Your task to perform on an android device: turn pop-ups on in chrome Image 0: 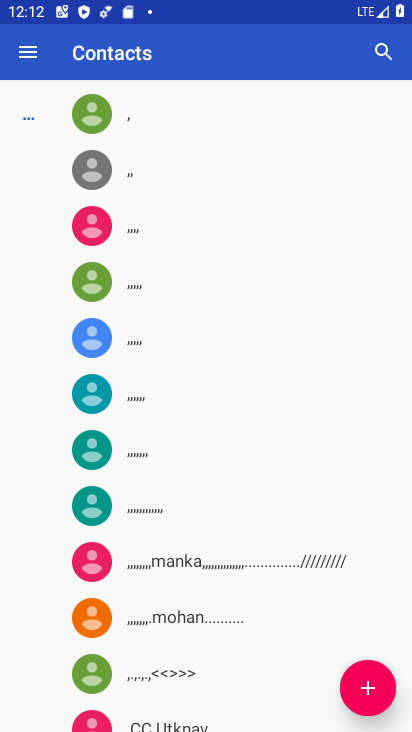
Step 0: press home button
Your task to perform on an android device: turn pop-ups on in chrome Image 1: 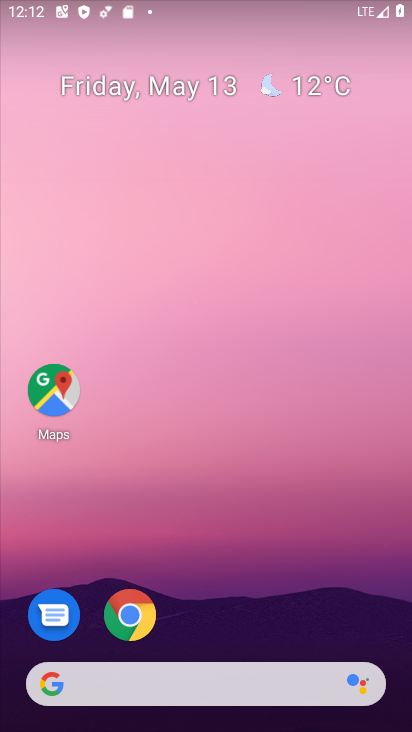
Step 1: click (140, 617)
Your task to perform on an android device: turn pop-ups on in chrome Image 2: 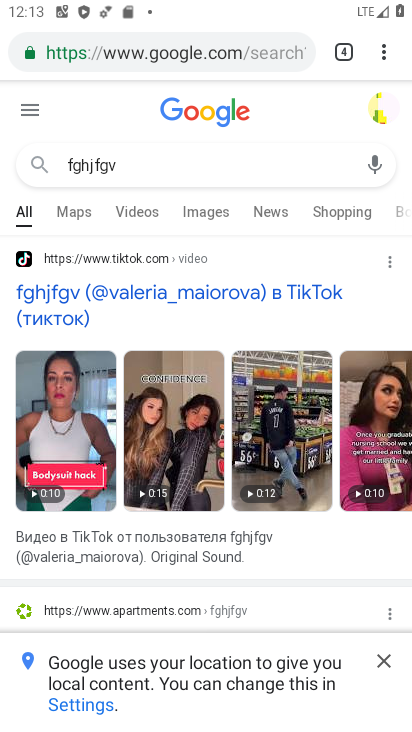
Step 2: click (379, 50)
Your task to perform on an android device: turn pop-ups on in chrome Image 3: 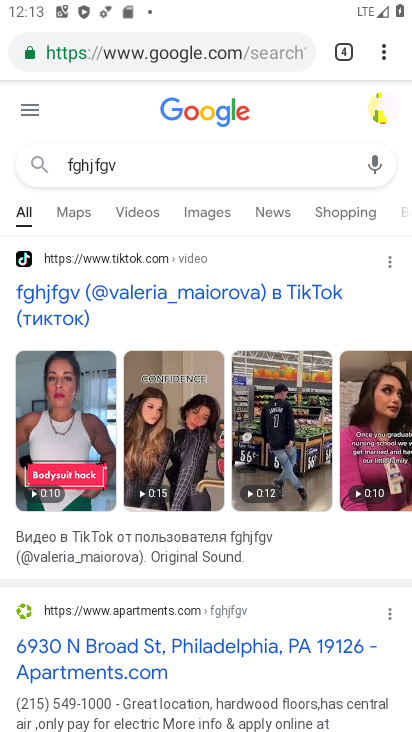
Step 3: drag from (379, 49) to (219, 572)
Your task to perform on an android device: turn pop-ups on in chrome Image 4: 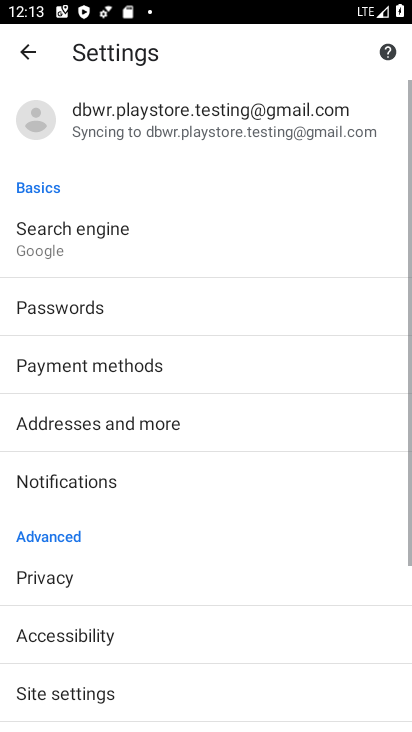
Step 4: drag from (214, 596) to (264, 248)
Your task to perform on an android device: turn pop-ups on in chrome Image 5: 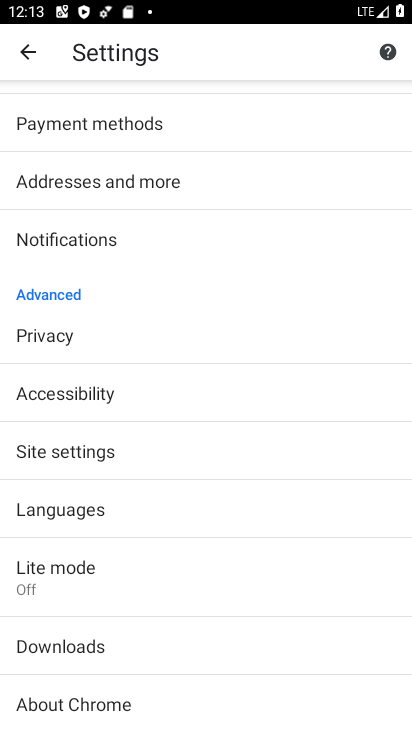
Step 5: click (126, 458)
Your task to perform on an android device: turn pop-ups on in chrome Image 6: 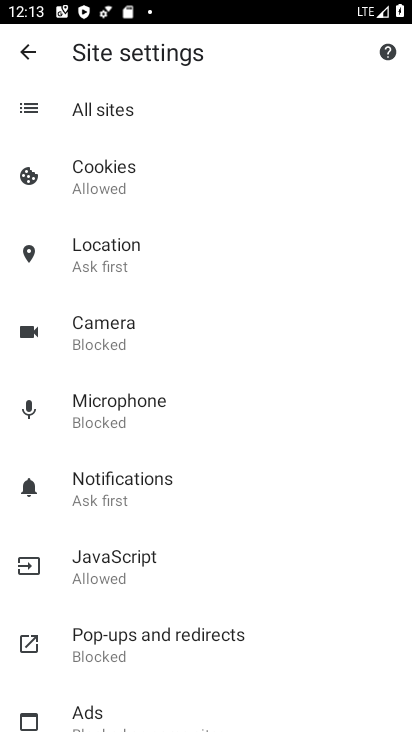
Step 6: click (143, 653)
Your task to perform on an android device: turn pop-ups on in chrome Image 7: 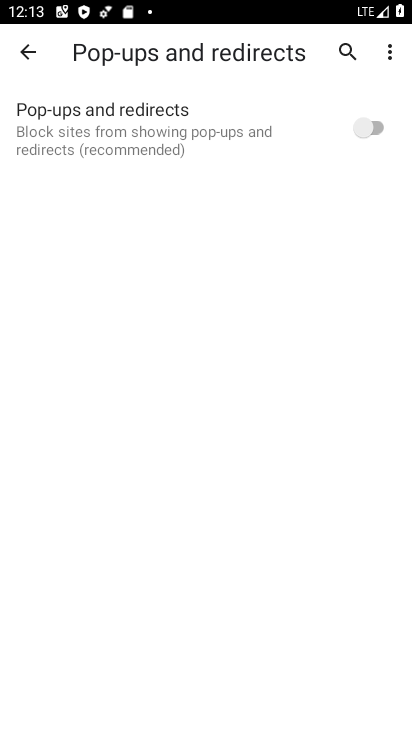
Step 7: click (380, 123)
Your task to perform on an android device: turn pop-ups on in chrome Image 8: 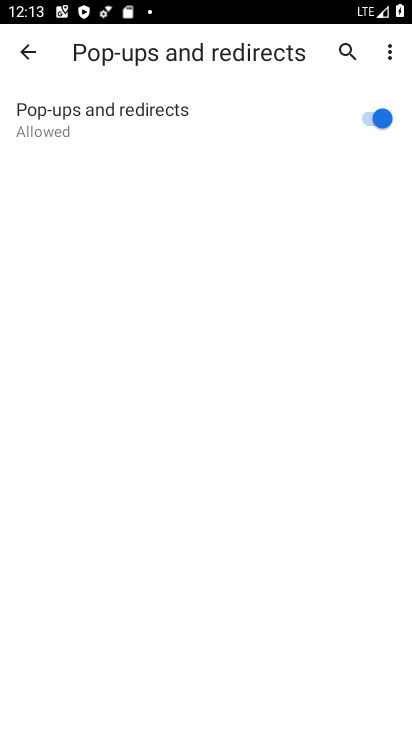
Step 8: task complete